Your task to perform on an android device: Go to location settings Image 0: 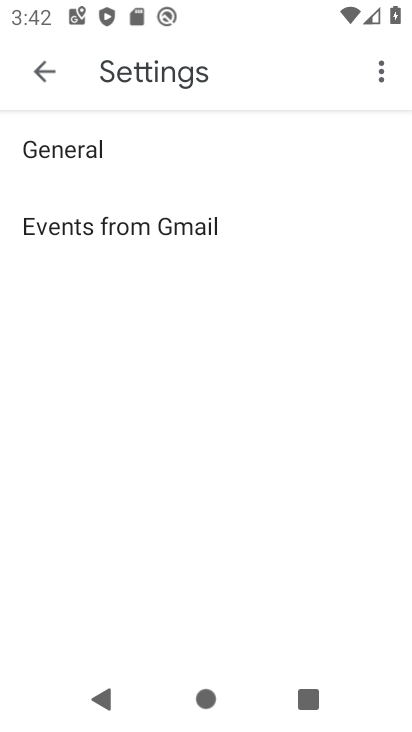
Step 0: press back button
Your task to perform on an android device: Go to location settings Image 1: 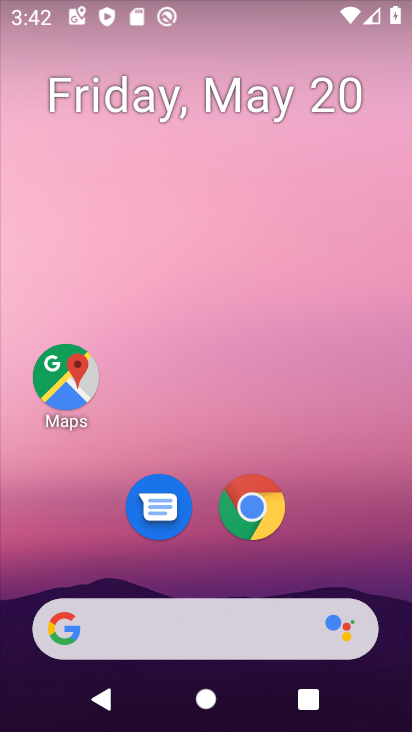
Step 1: drag from (302, 575) to (224, 74)
Your task to perform on an android device: Go to location settings Image 2: 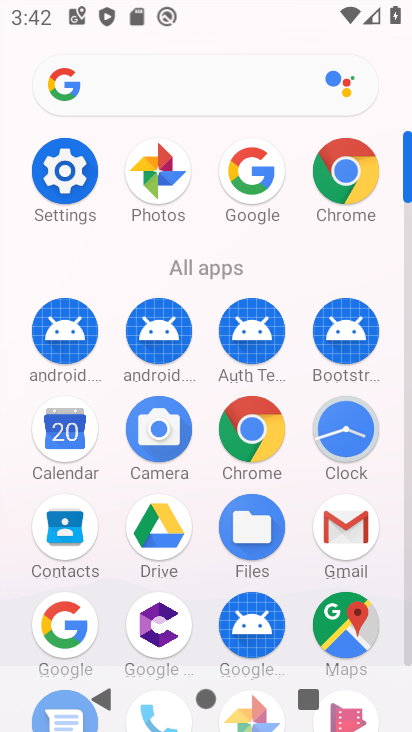
Step 2: click (68, 172)
Your task to perform on an android device: Go to location settings Image 3: 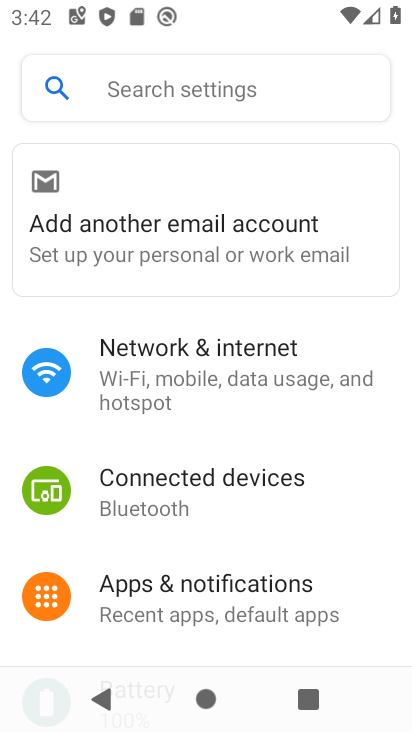
Step 3: drag from (197, 520) to (221, 411)
Your task to perform on an android device: Go to location settings Image 4: 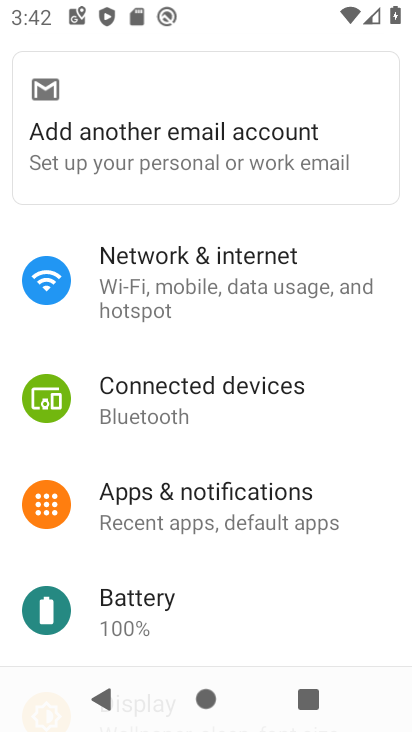
Step 4: drag from (192, 548) to (211, 442)
Your task to perform on an android device: Go to location settings Image 5: 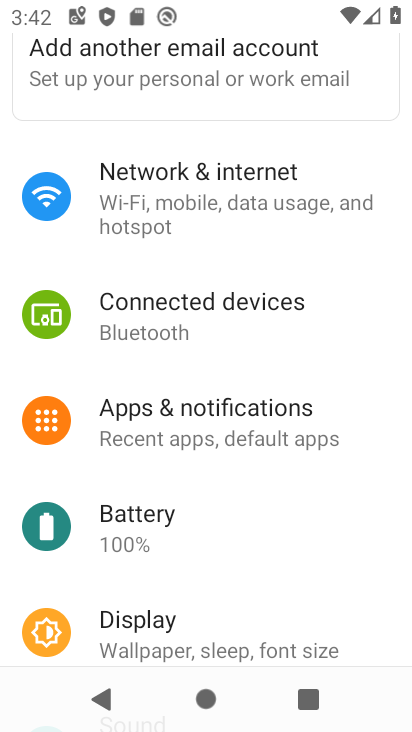
Step 5: drag from (177, 561) to (208, 428)
Your task to perform on an android device: Go to location settings Image 6: 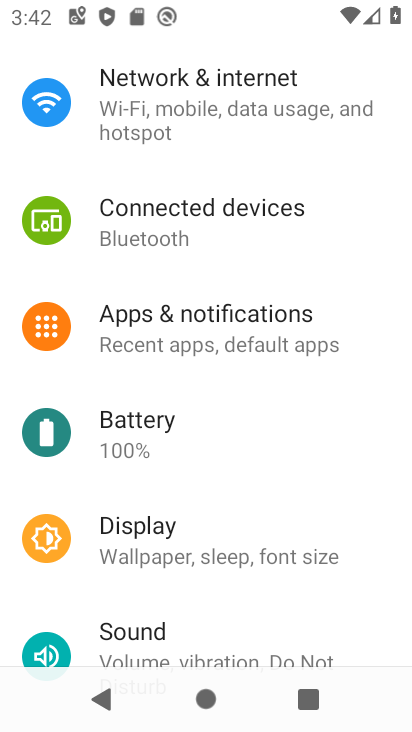
Step 6: drag from (183, 572) to (213, 478)
Your task to perform on an android device: Go to location settings Image 7: 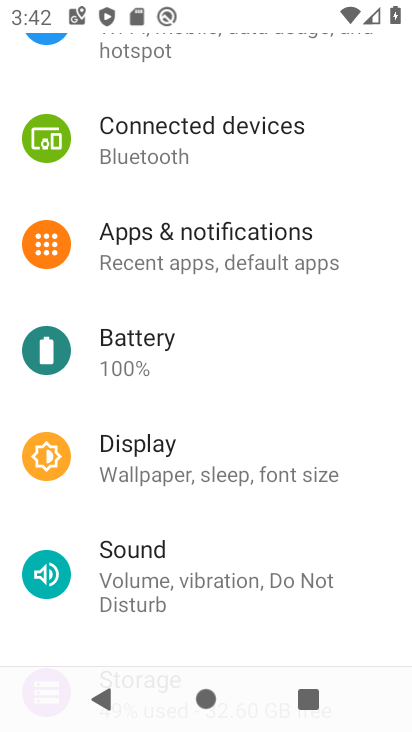
Step 7: drag from (203, 536) to (222, 431)
Your task to perform on an android device: Go to location settings Image 8: 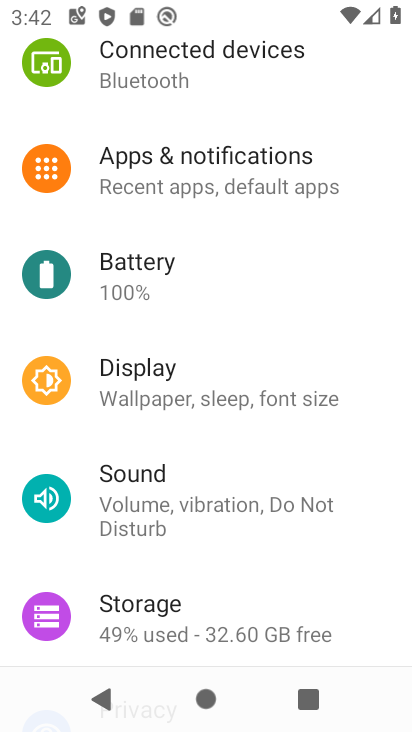
Step 8: drag from (201, 546) to (213, 447)
Your task to perform on an android device: Go to location settings Image 9: 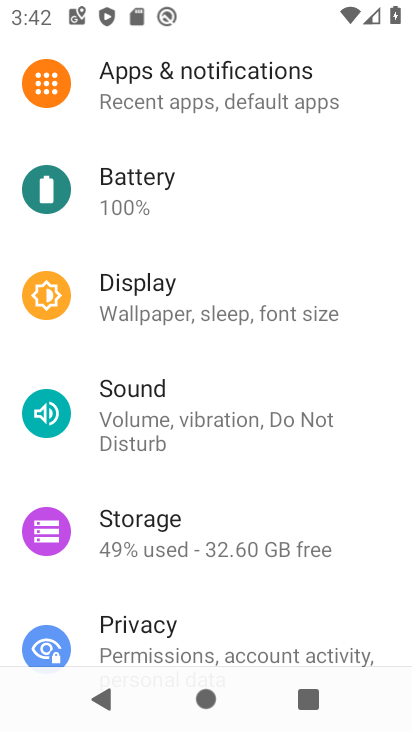
Step 9: drag from (198, 500) to (223, 392)
Your task to perform on an android device: Go to location settings Image 10: 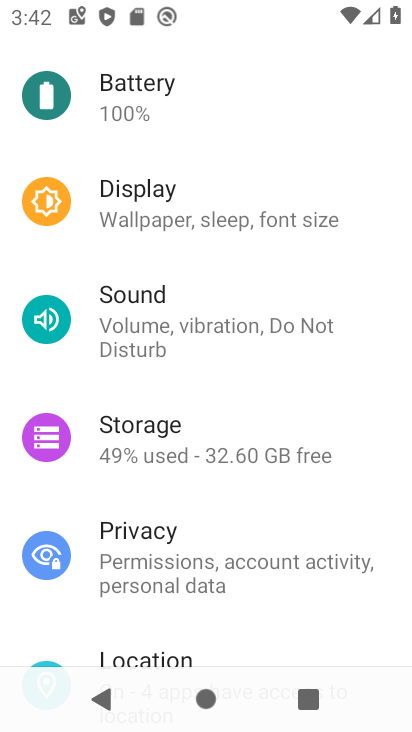
Step 10: drag from (203, 507) to (218, 424)
Your task to perform on an android device: Go to location settings Image 11: 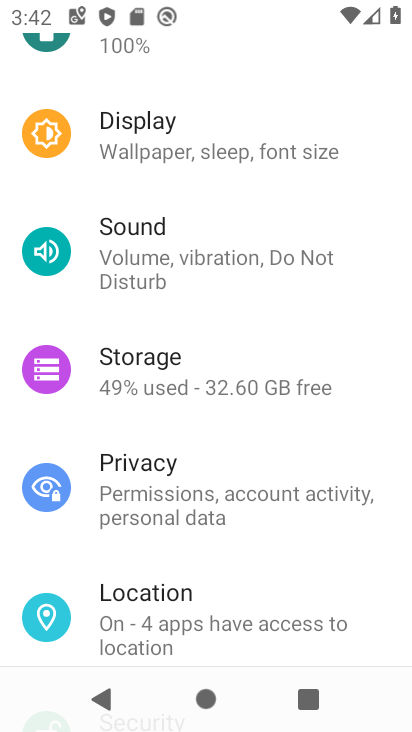
Step 11: drag from (196, 569) to (222, 434)
Your task to perform on an android device: Go to location settings Image 12: 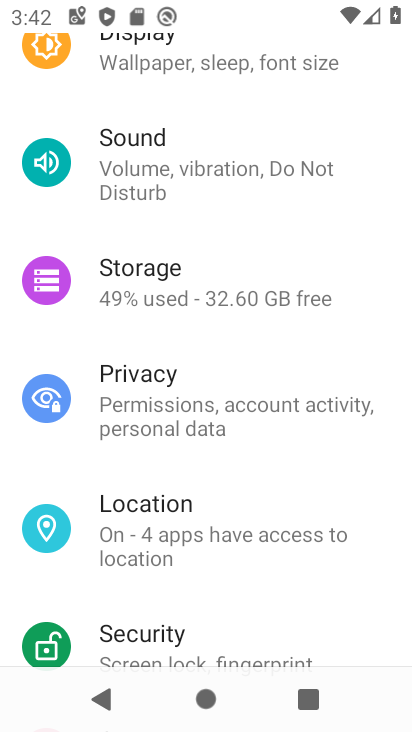
Step 12: click (163, 533)
Your task to perform on an android device: Go to location settings Image 13: 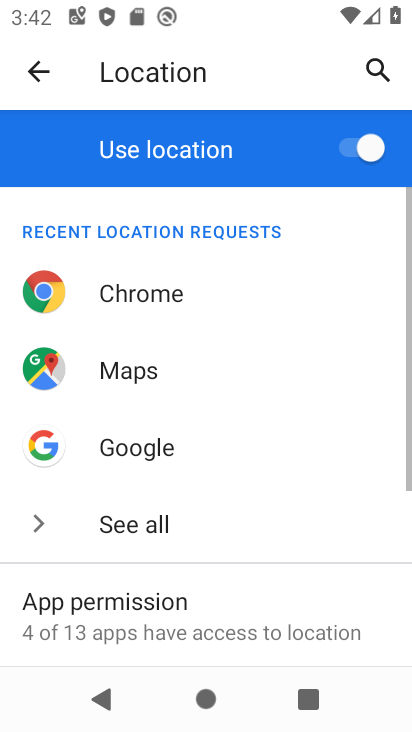
Step 13: task complete